Your task to perform on an android device: Go to location settings Image 0: 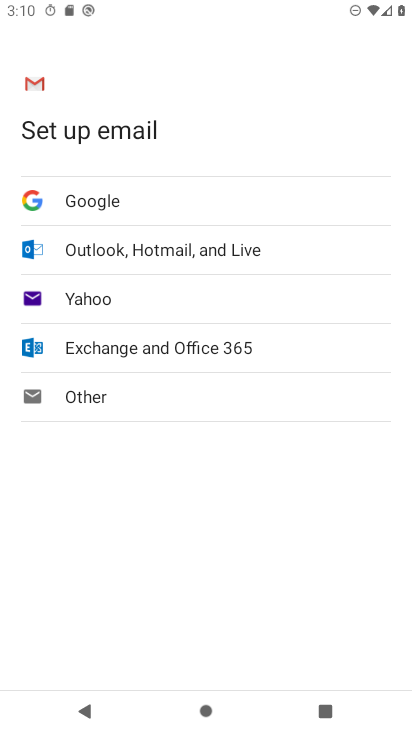
Step 0: press home button
Your task to perform on an android device: Go to location settings Image 1: 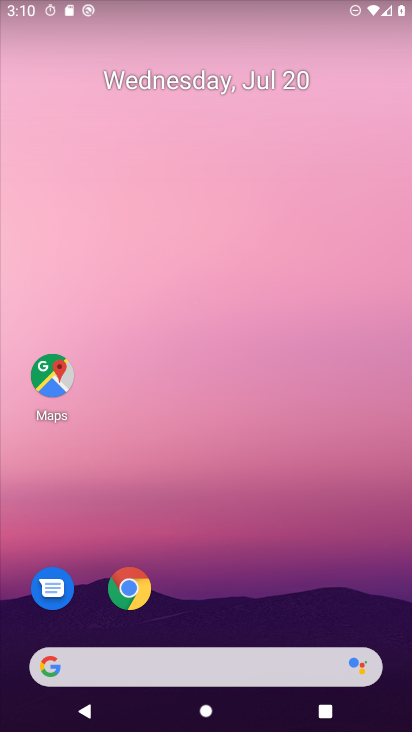
Step 1: drag from (241, 615) to (192, 97)
Your task to perform on an android device: Go to location settings Image 2: 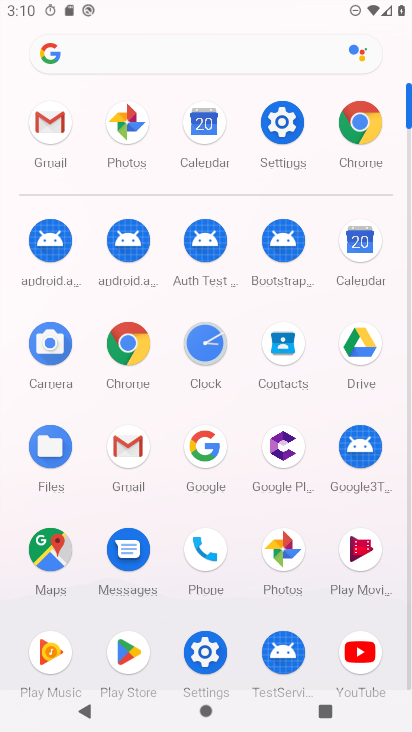
Step 2: click (290, 133)
Your task to perform on an android device: Go to location settings Image 3: 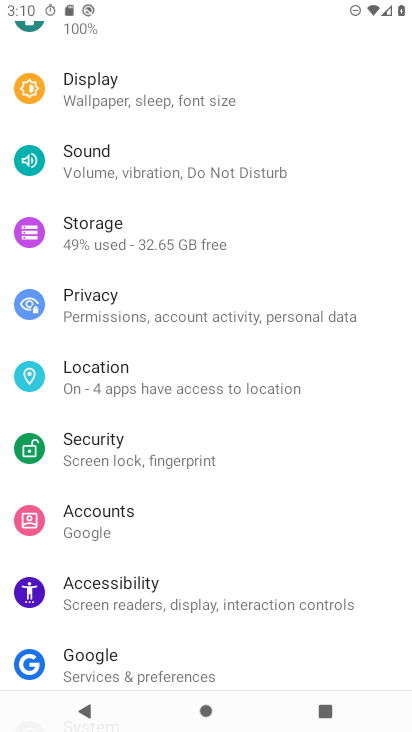
Step 3: click (88, 358)
Your task to perform on an android device: Go to location settings Image 4: 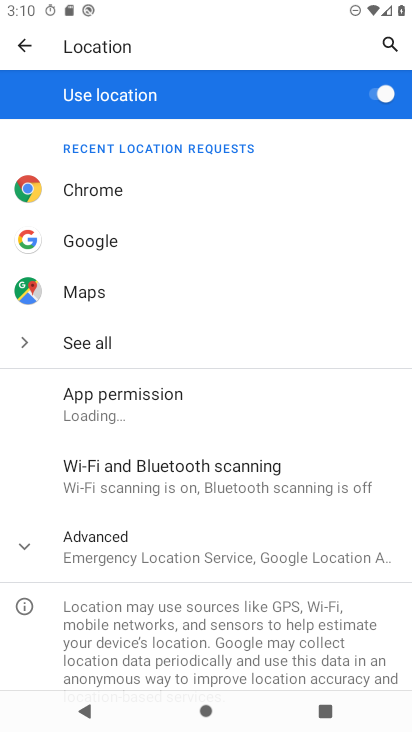
Step 4: click (83, 538)
Your task to perform on an android device: Go to location settings Image 5: 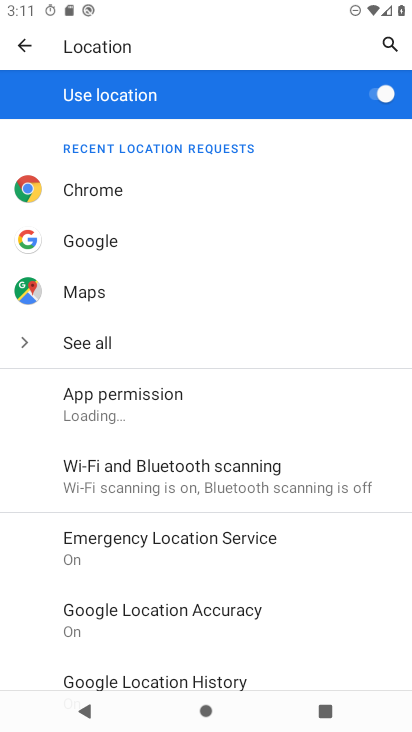
Step 5: task complete